Your task to perform on an android device: turn on location history Image 0: 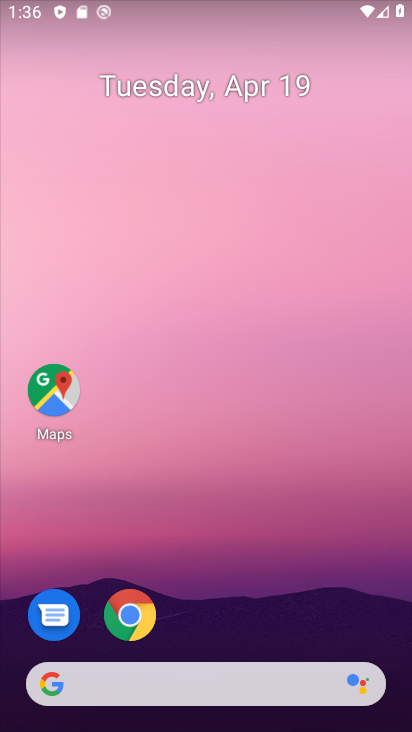
Step 0: drag from (177, 624) to (221, 519)
Your task to perform on an android device: turn on location history Image 1: 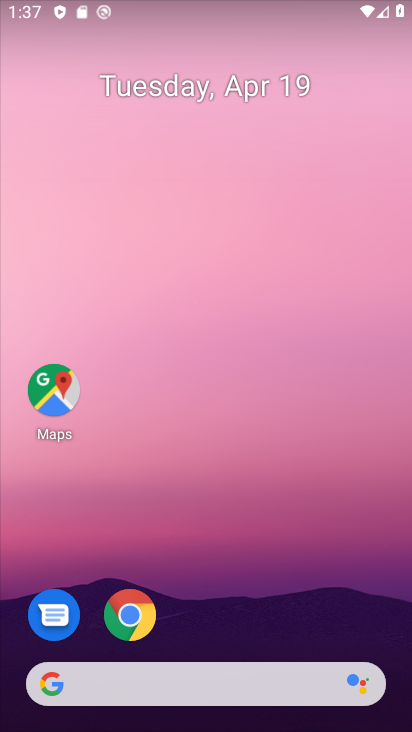
Step 1: drag from (179, 651) to (203, 314)
Your task to perform on an android device: turn on location history Image 2: 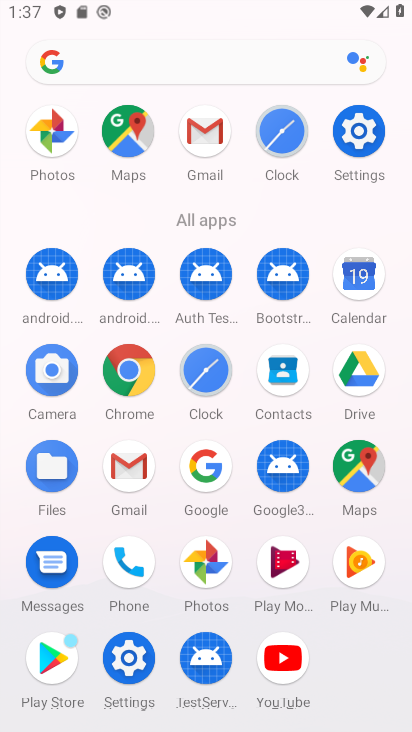
Step 2: drag from (257, 537) to (266, 271)
Your task to perform on an android device: turn on location history Image 3: 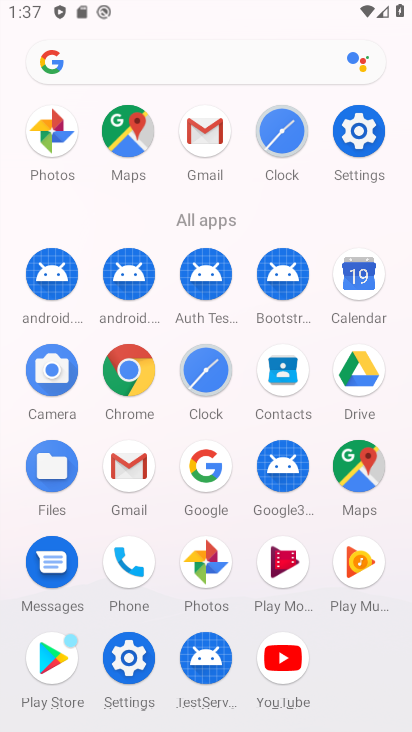
Step 3: click (120, 652)
Your task to perform on an android device: turn on location history Image 4: 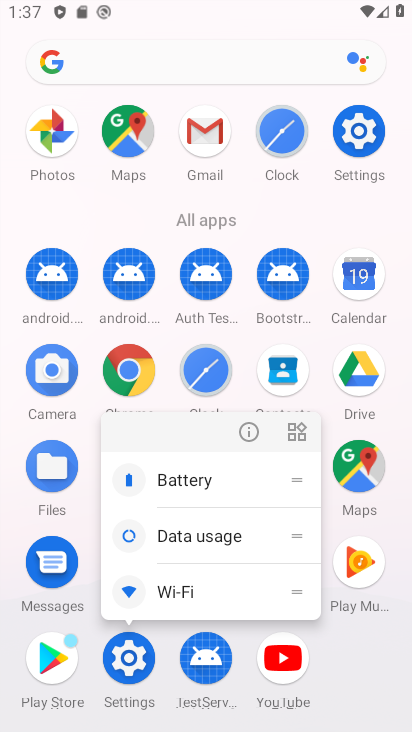
Step 4: click (245, 425)
Your task to perform on an android device: turn on location history Image 5: 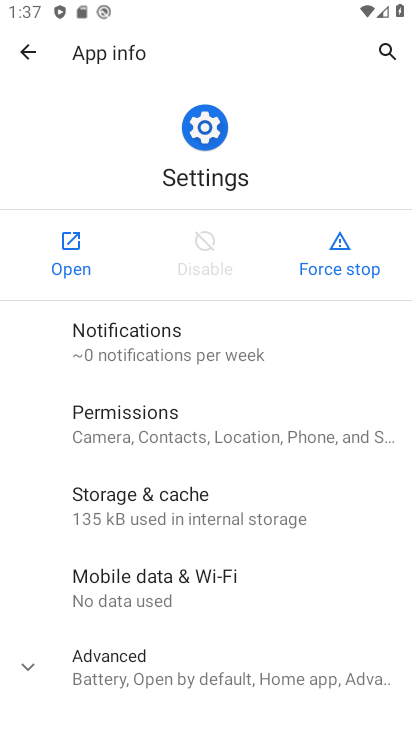
Step 5: click (70, 266)
Your task to perform on an android device: turn on location history Image 6: 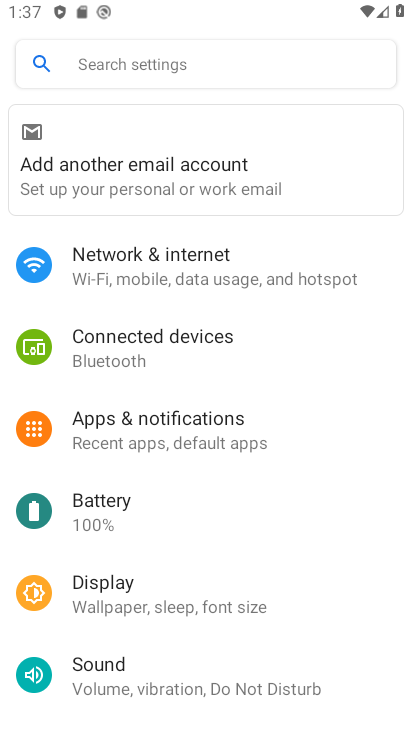
Step 6: drag from (170, 551) to (185, 344)
Your task to perform on an android device: turn on location history Image 7: 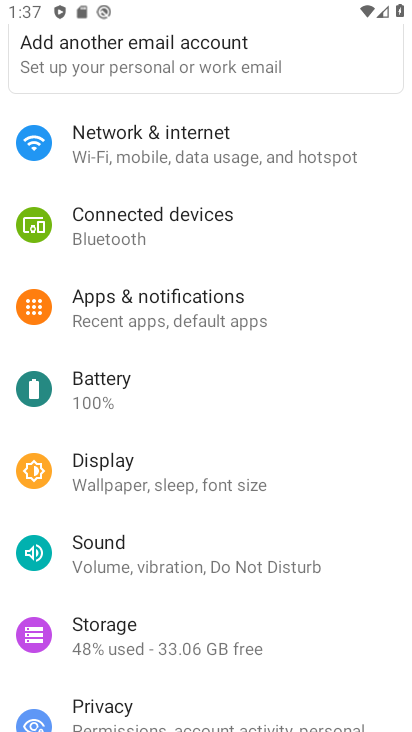
Step 7: drag from (125, 610) to (281, 148)
Your task to perform on an android device: turn on location history Image 8: 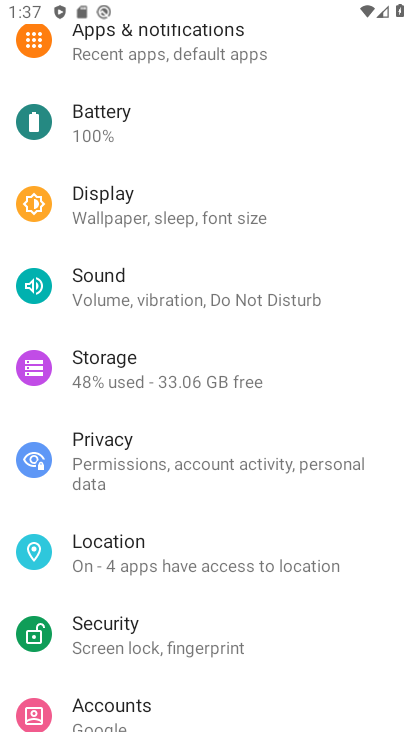
Step 8: drag from (173, 647) to (200, 313)
Your task to perform on an android device: turn on location history Image 9: 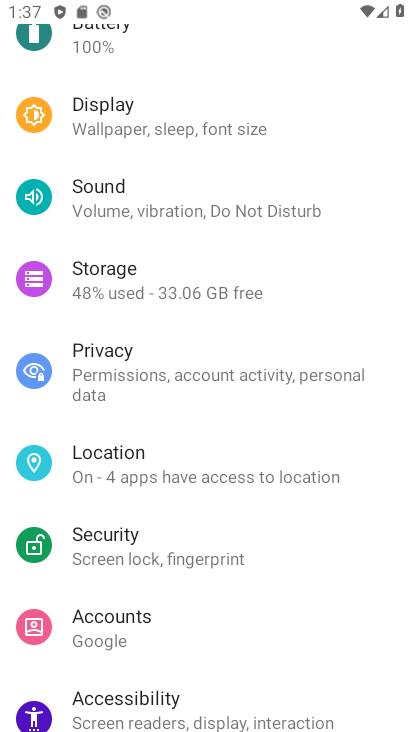
Step 9: click (183, 471)
Your task to perform on an android device: turn on location history Image 10: 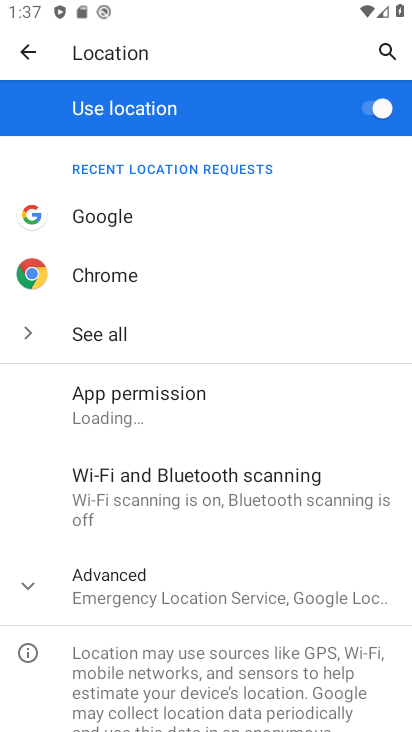
Step 10: drag from (243, 623) to (278, 439)
Your task to perform on an android device: turn on location history Image 11: 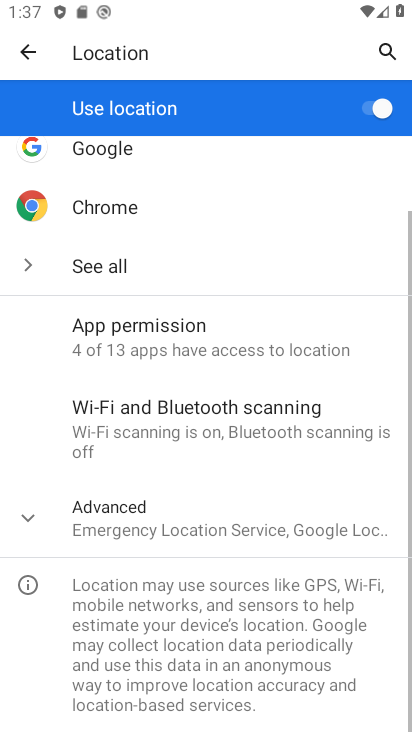
Step 11: click (202, 507)
Your task to perform on an android device: turn on location history Image 12: 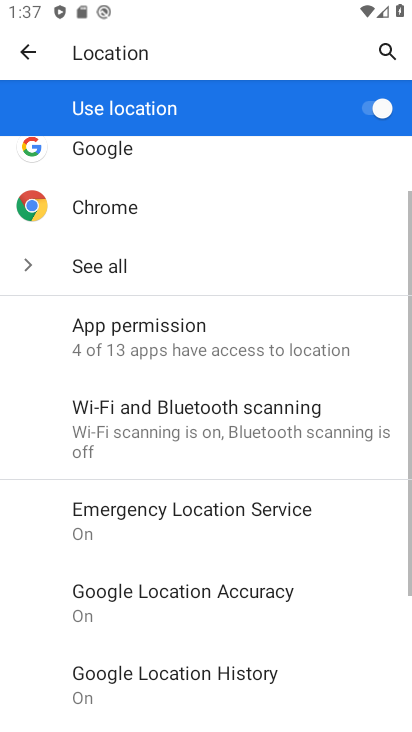
Step 12: drag from (220, 623) to (323, 290)
Your task to perform on an android device: turn on location history Image 13: 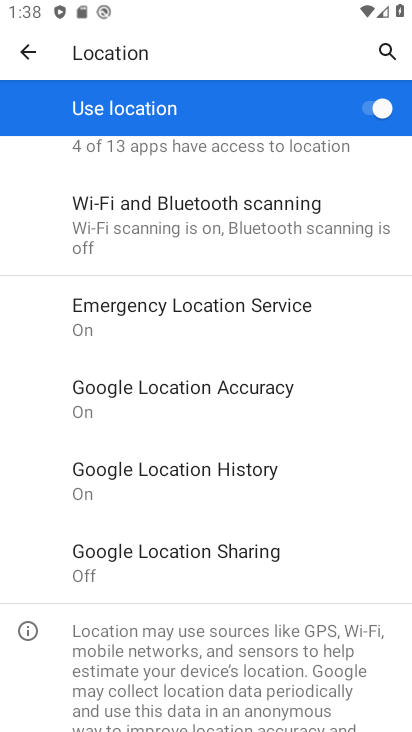
Step 13: click (220, 466)
Your task to perform on an android device: turn on location history Image 14: 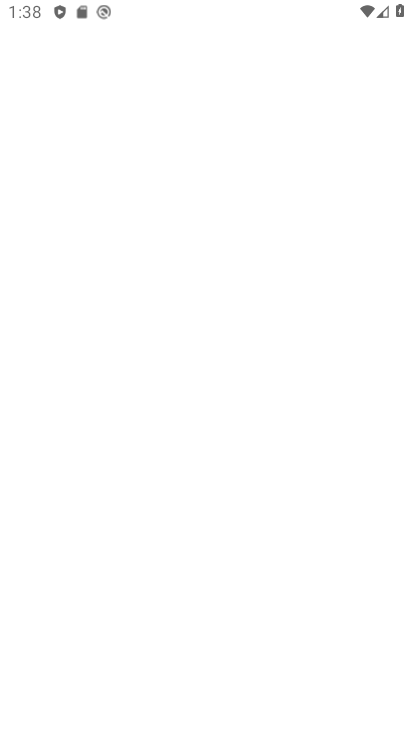
Step 14: task complete